Your task to perform on an android device: Show the shopping cart on newegg.com. Add logitech g933 to the cart on newegg.com, then select checkout. Image 0: 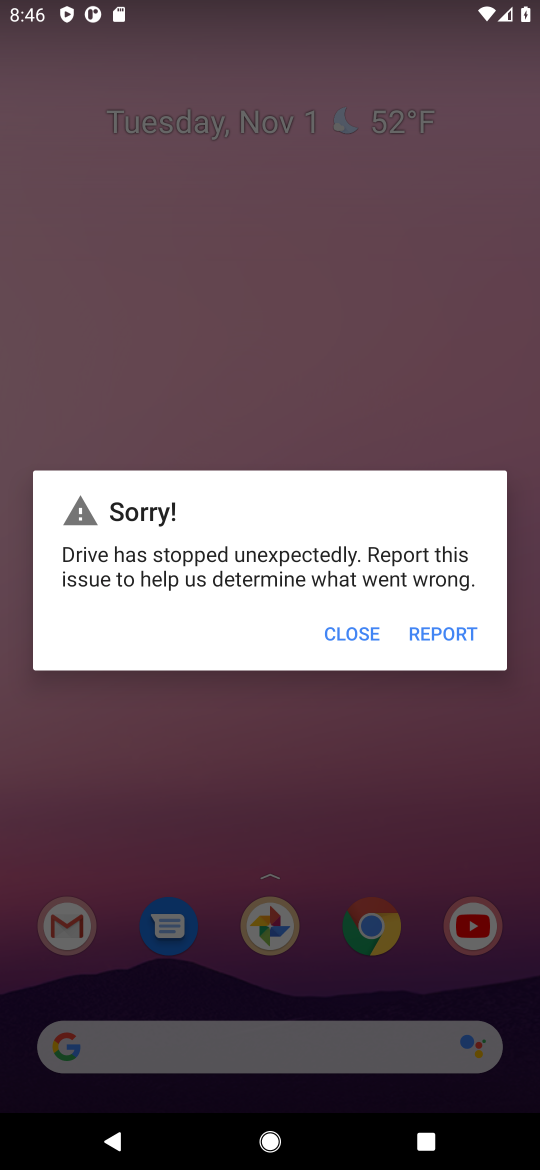
Step 0: click (349, 636)
Your task to perform on an android device: Show the shopping cart on newegg.com. Add logitech g933 to the cart on newegg.com, then select checkout. Image 1: 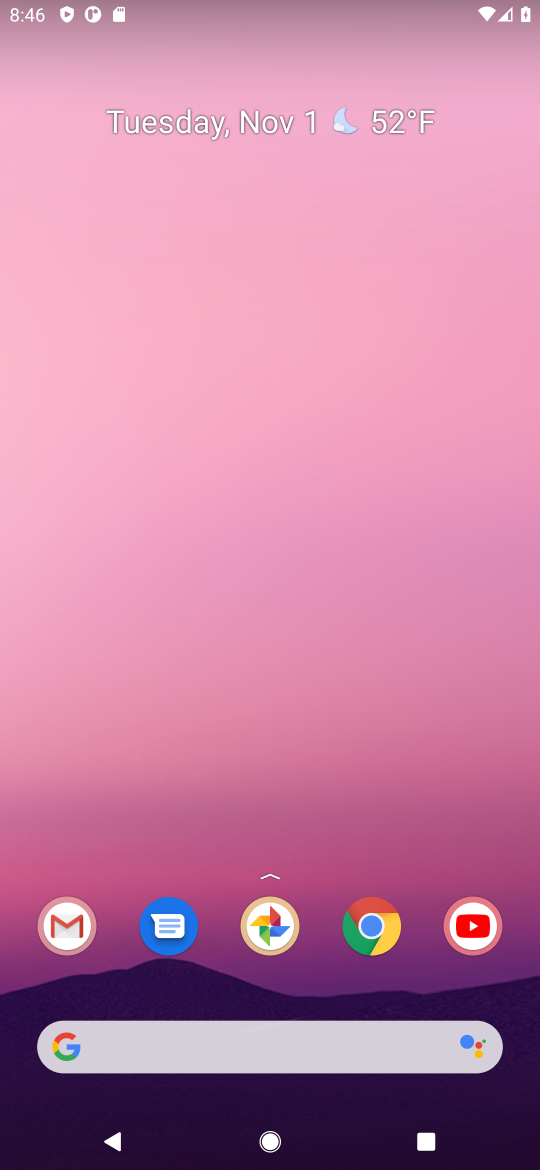
Step 1: click (373, 945)
Your task to perform on an android device: Show the shopping cart on newegg.com. Add logitech g933 to the cart on newegg.com, then select checkout. Image 2: 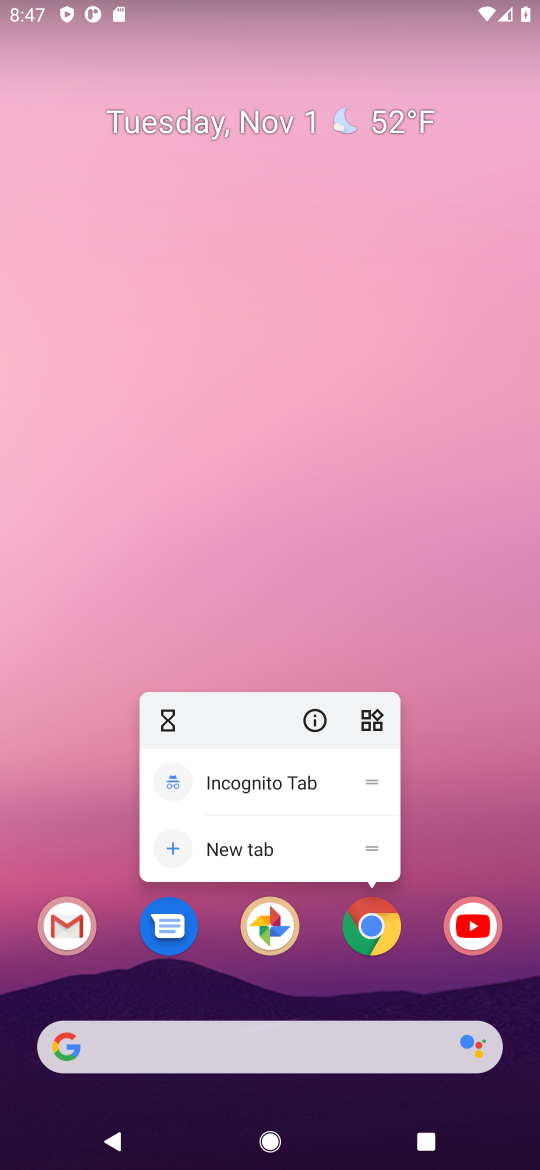
Step 2: click (394, 924)
Your task to perform on an android device: Show the shopping cart on newegg.com. Add logitech g933 to the cart on newegg.com, then select checkout. Image 3: 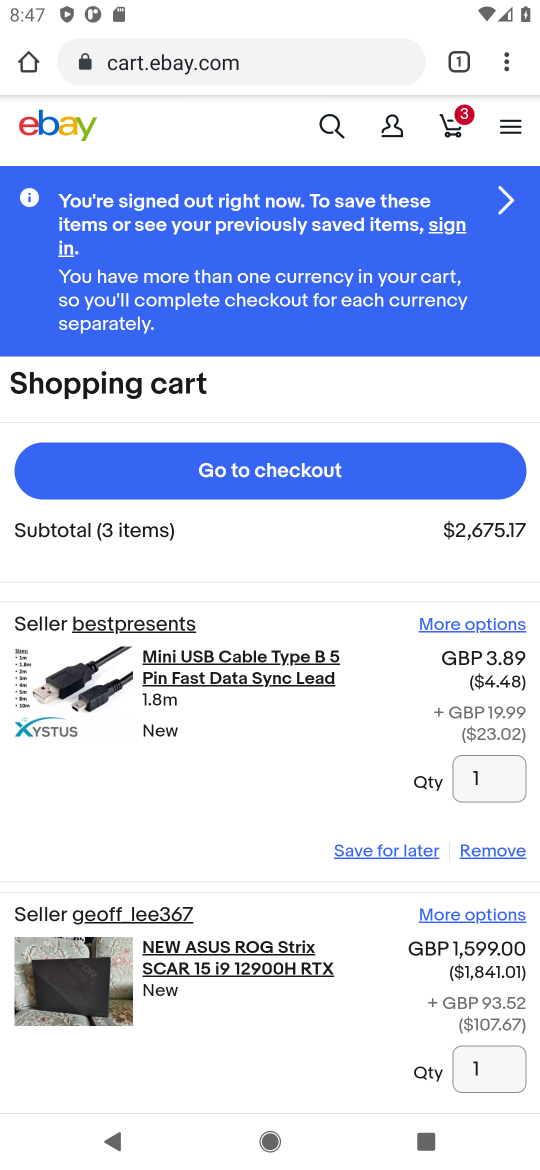
Step 3: click (180, 61)
Your task to perform on an android device: Show the shopping cart on newegg.com. Add logitech g933 to the cart on newegg.com, then select checkout. Image 4: 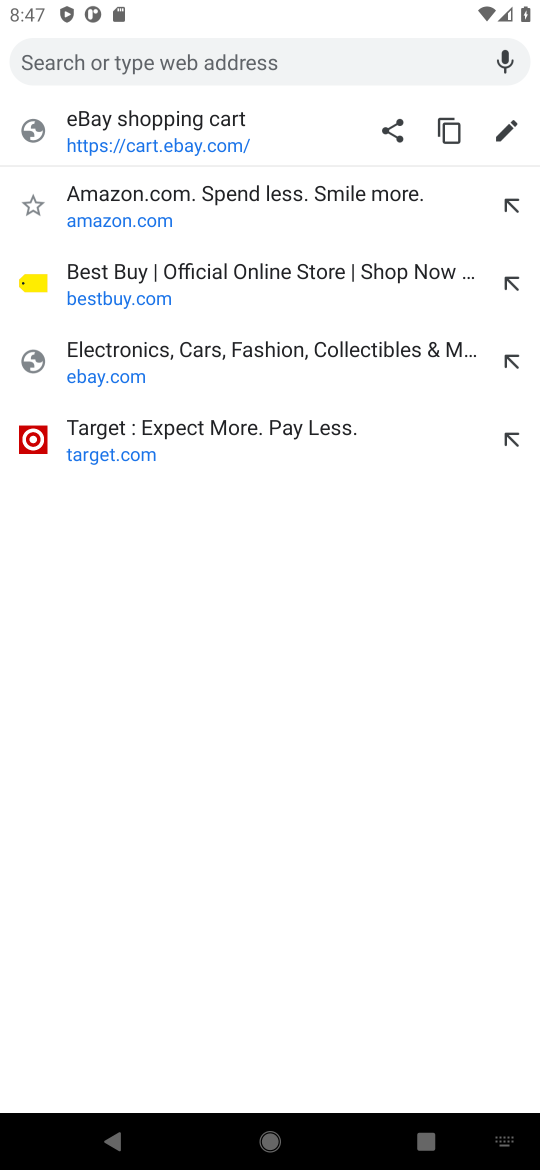
Step 4: type "newegg.com"
Your task to perform on an android device: Show the shopping cart on newegg.com. Add logitech g933 to the cart on newegg.com, then select checkout. Image 5: 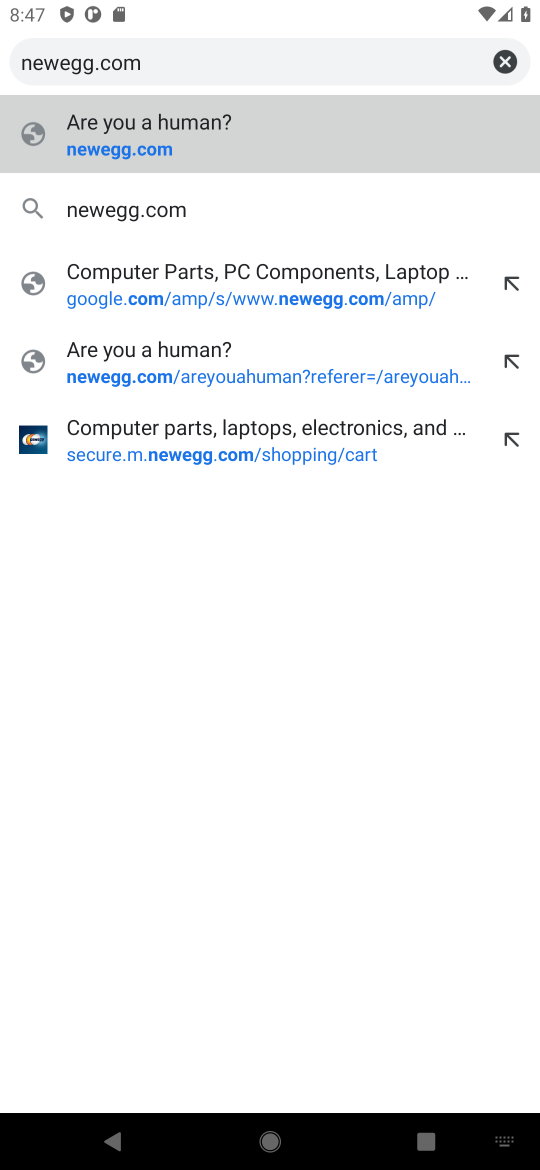
Step 5: click (151, 459)
Your task to perform on an android device: Show the shopping cart on newegg.com. Add logitech g933 to the cart on newegg.com, then select checkout. Image 6: 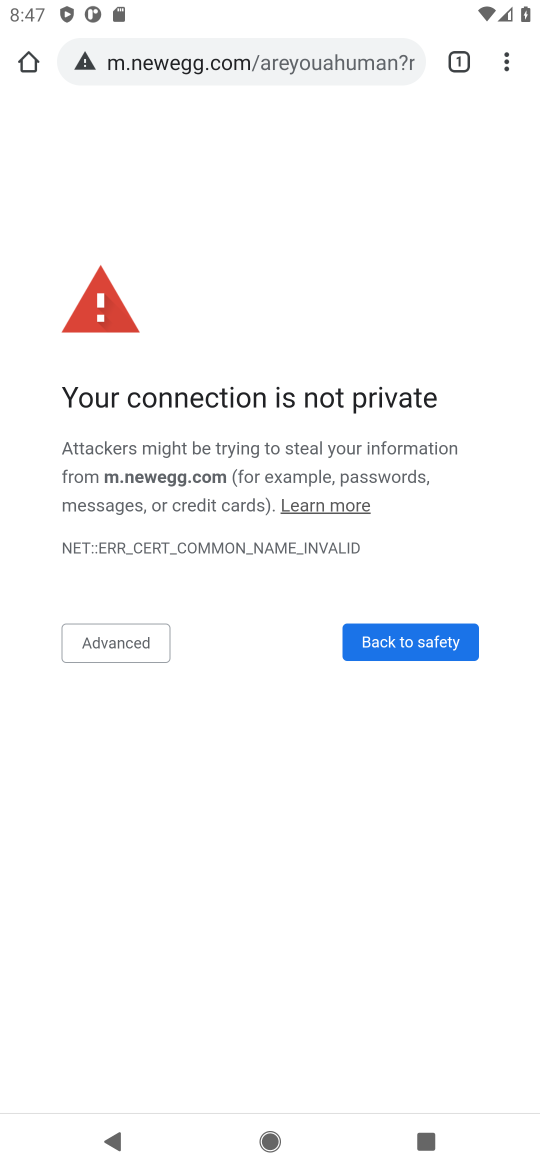
Step 6: press back button
Your task to perform on an android device: Show the shopping cart on newegg.com. Add logitech g933 to the cart on newegg.com, then select checkout. Image 7: 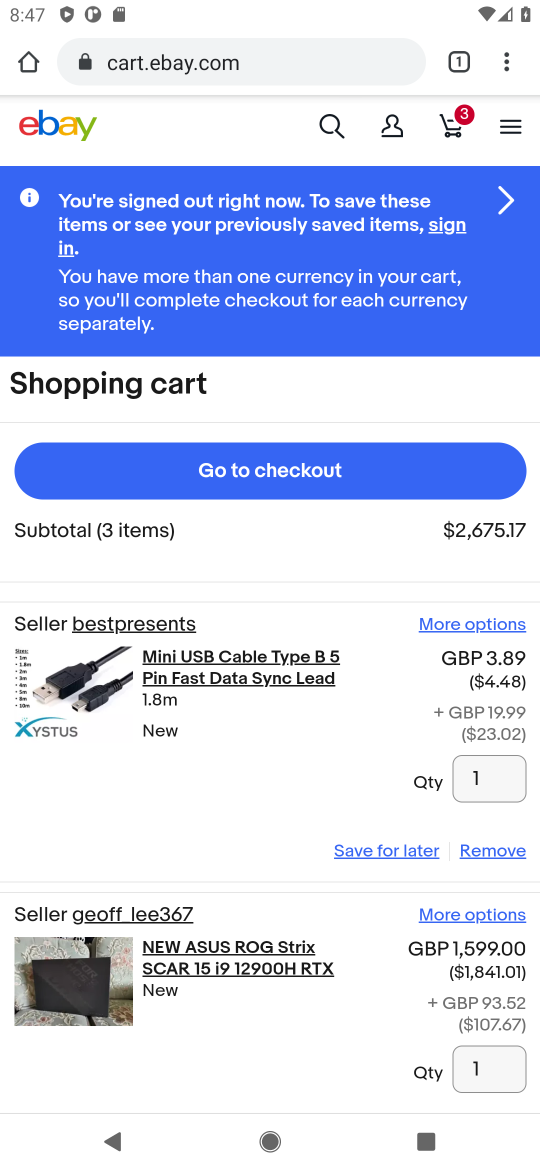
Step 7: click (452, 121)
Your task to perform on an android device: Show the shopping cart on newegg.com. Add logitech g933 to the cart on newegg.com, then select checkout. Image 8: 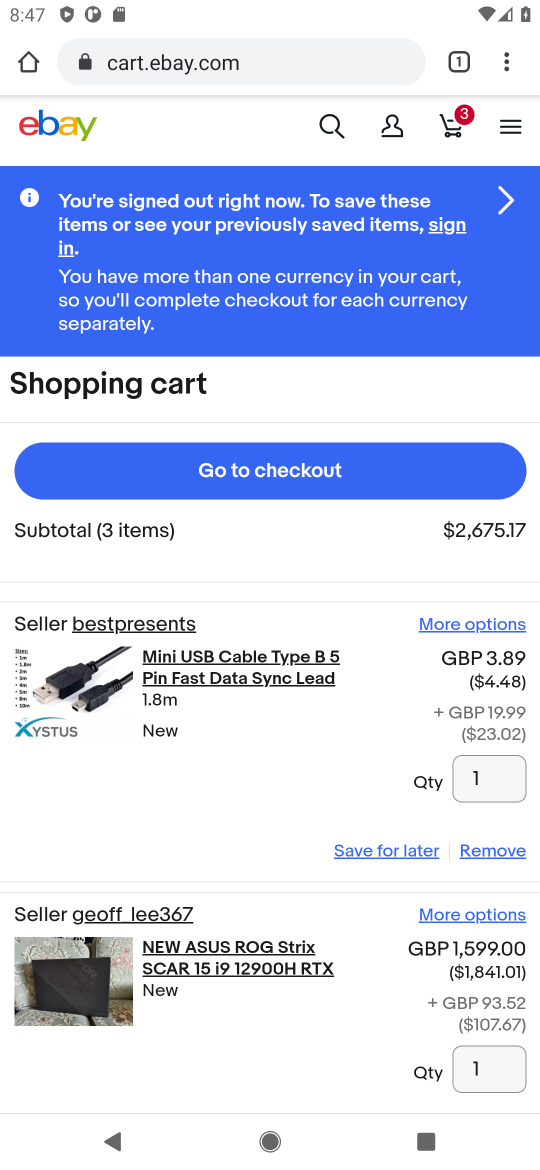
Step 8: click (323, 113)
Your task to perform on an android device: Show the shopping cart on newegg.com. Add logitech g933 to the cart on newegg.com, then select checkout. Image 9: 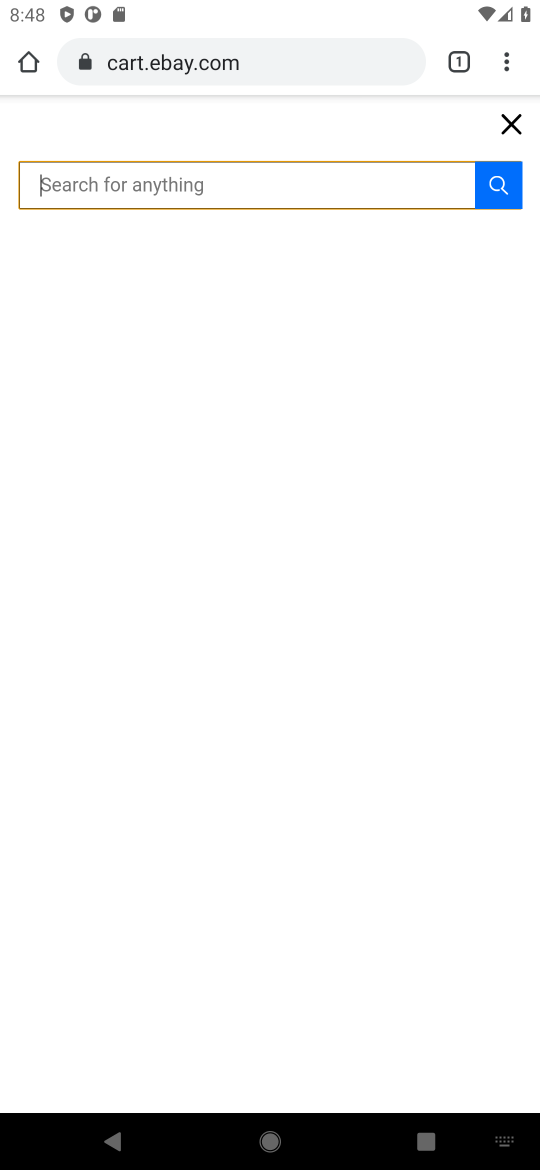
Step 9: type ""
Your task to perform on an android device: Show the shopping cart on newegg.com. Add logitech g933 to the cart on newegg.com, then select checkout. Image 10: 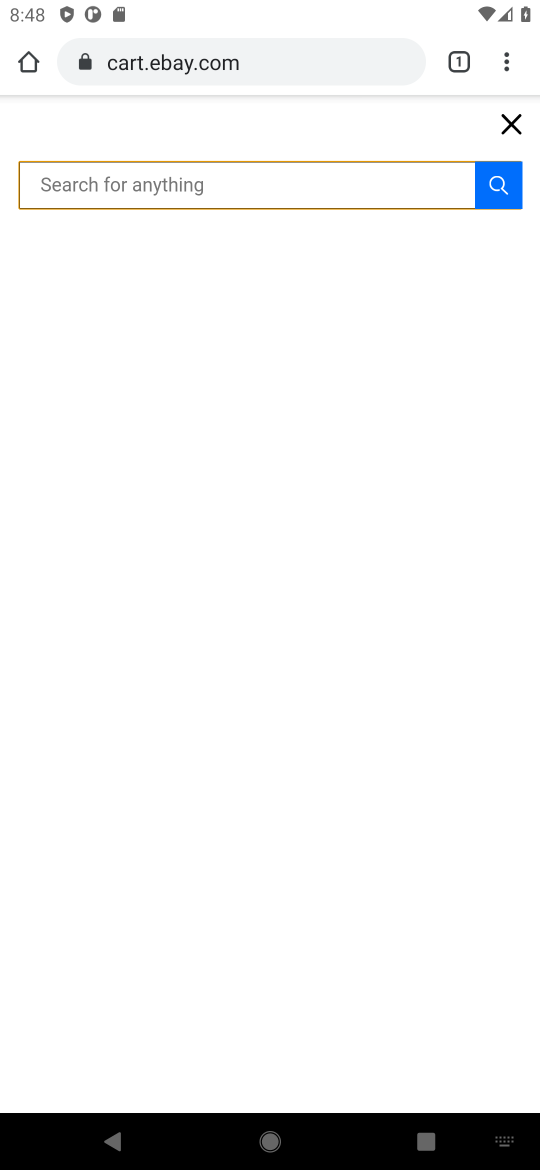
Step 10: press back button
Your task to perform on an android device: Show the shopping cart on newegg.com. Add logitech g933 to the cart on newegg.com, then select checkout. Image 11: 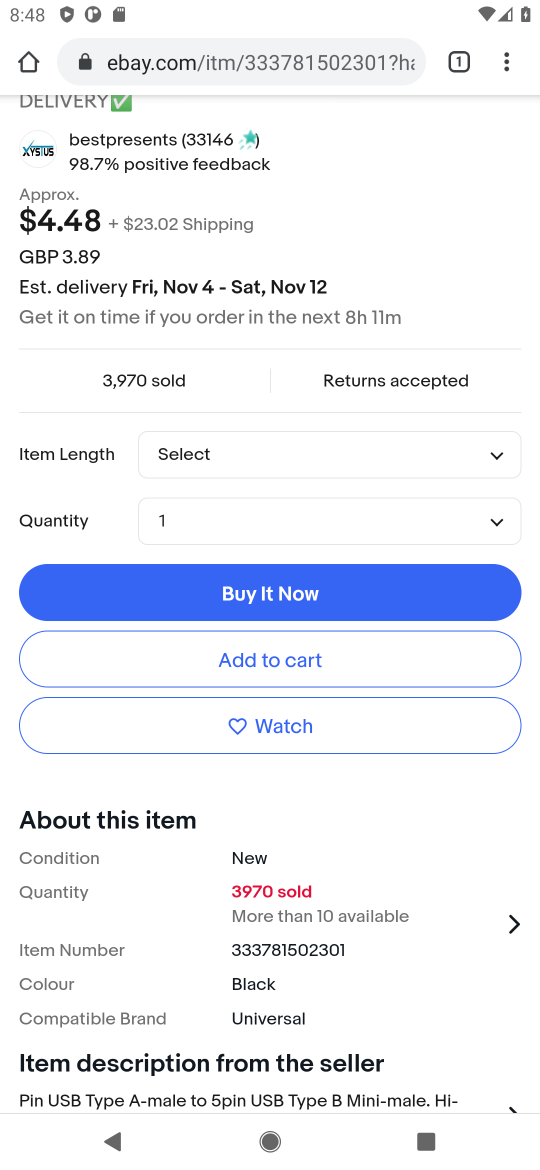
Step 11: click (214, 61)
Your task to perform on an android device: Show the shopping cart on newegg.com. Add logitech g933 to the cart on newegg.com, then select checkout. Image 12: 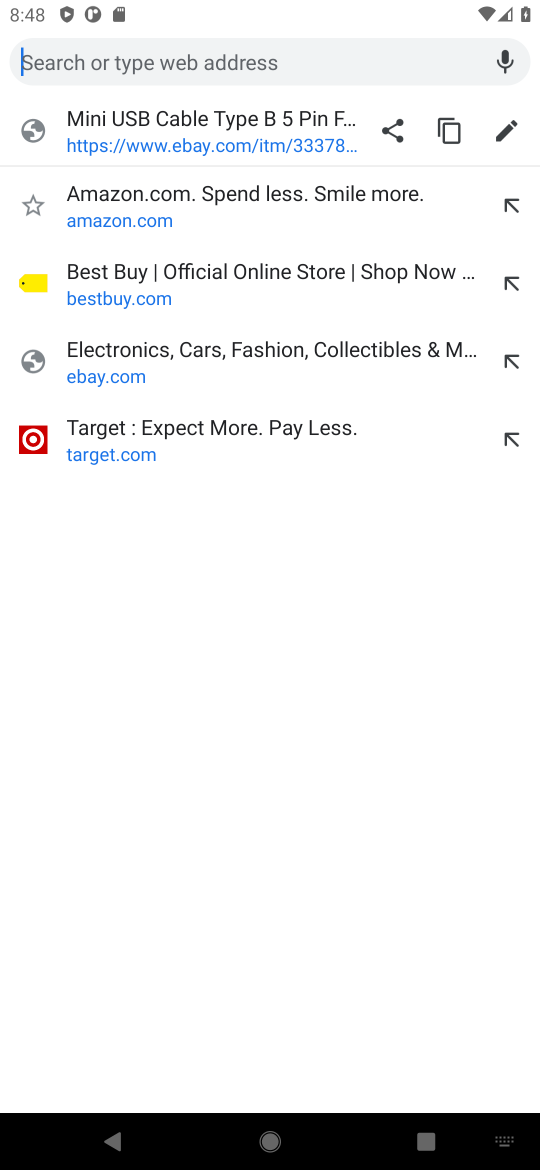
Step 12: type "newegg.com"
Your task to perform on an android device: Show the shopping cart on newegg.com. Add logitech g933 to the cart on newegg.com, then select checkout. Image 13: 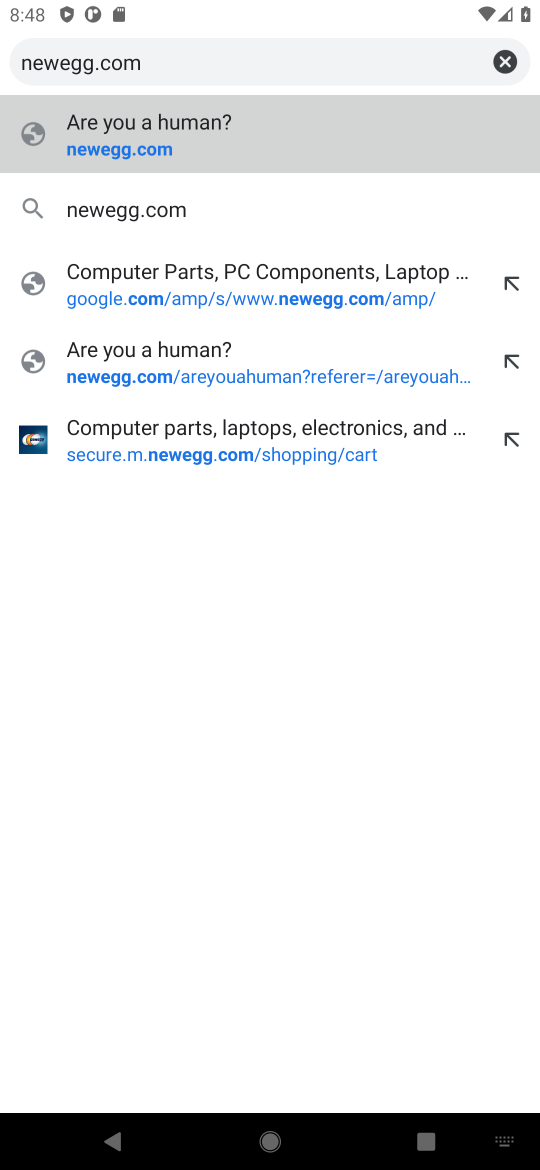
Step 13: type ""
Your task to perform on an android device: Show the shopping cart on newegg.com. Add logitech g933 to the cart on newegg.com, then select checkout. Image 14: 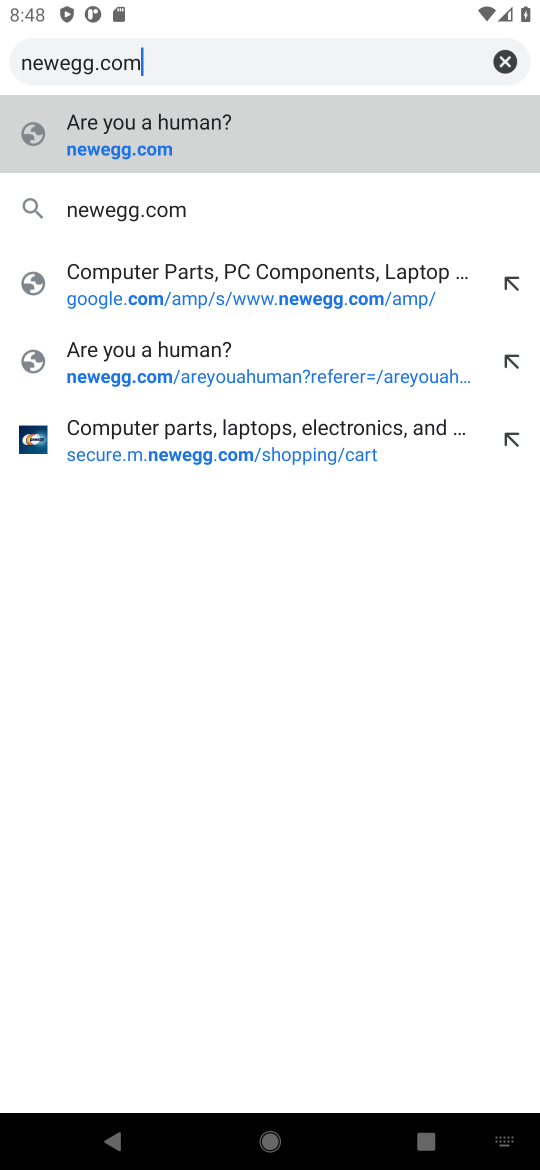
Step 14: click (170, 77)
Your task to perform on an android device: Show the shopping cart on newegg.com. Add logitech g933 to the cart on newegg.com, then select checkout. Image 15: 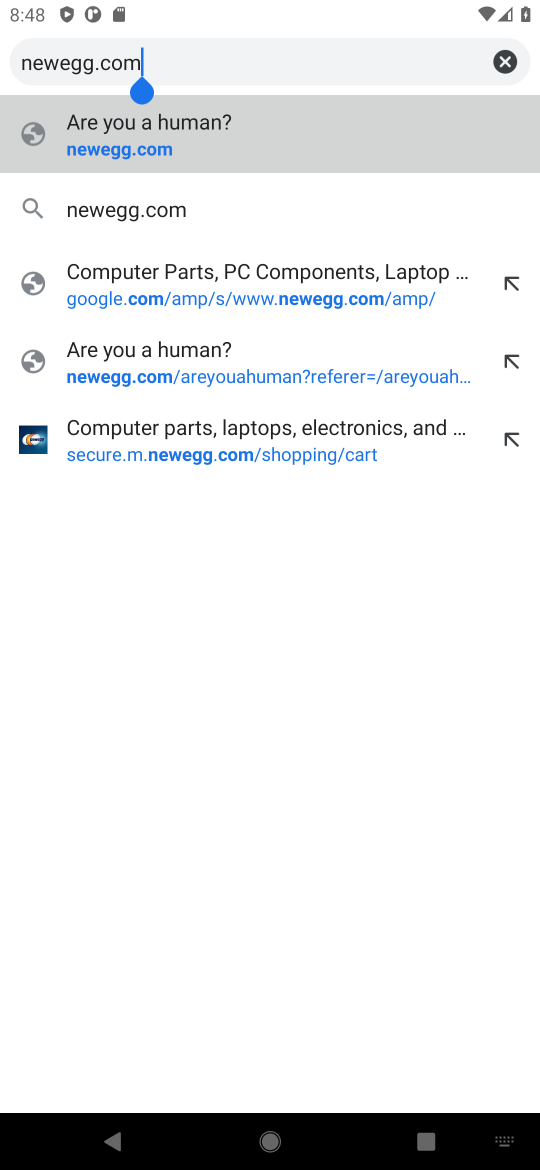
Step 15: click (498, 61)
Your task to perform on an android device: Show the shopping cart on newegg.com. Add logitech g933 to the cart on newegg.com, then select checkout. Image 16: 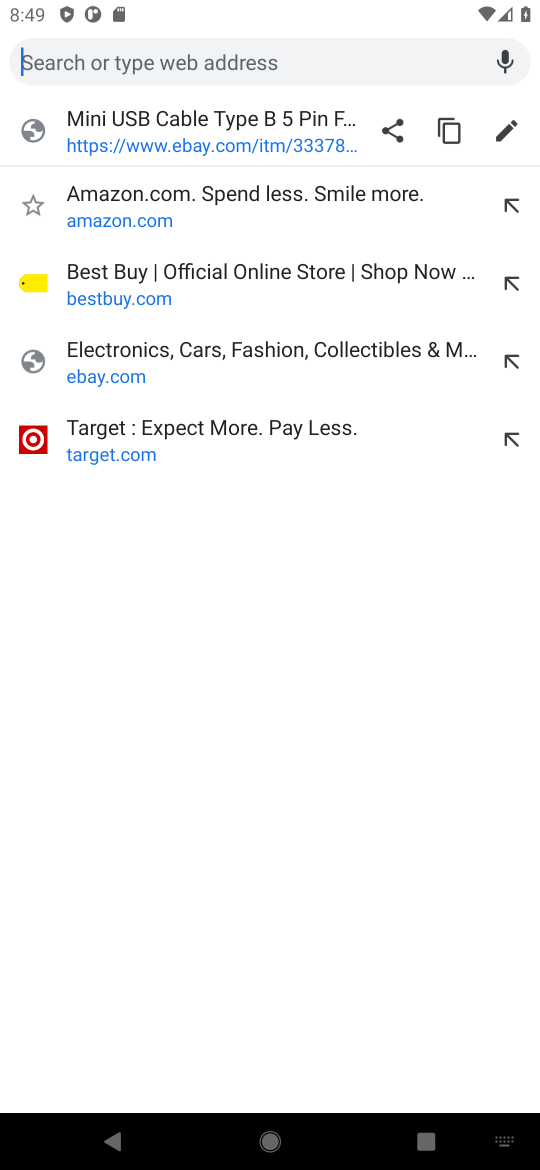
Step 16: type "newegg"
Your task to perform on an android device: Show the shopping cart on newegg.com. Add logitech g933 to the cart on newegg.com, then select checkout. Image 17: 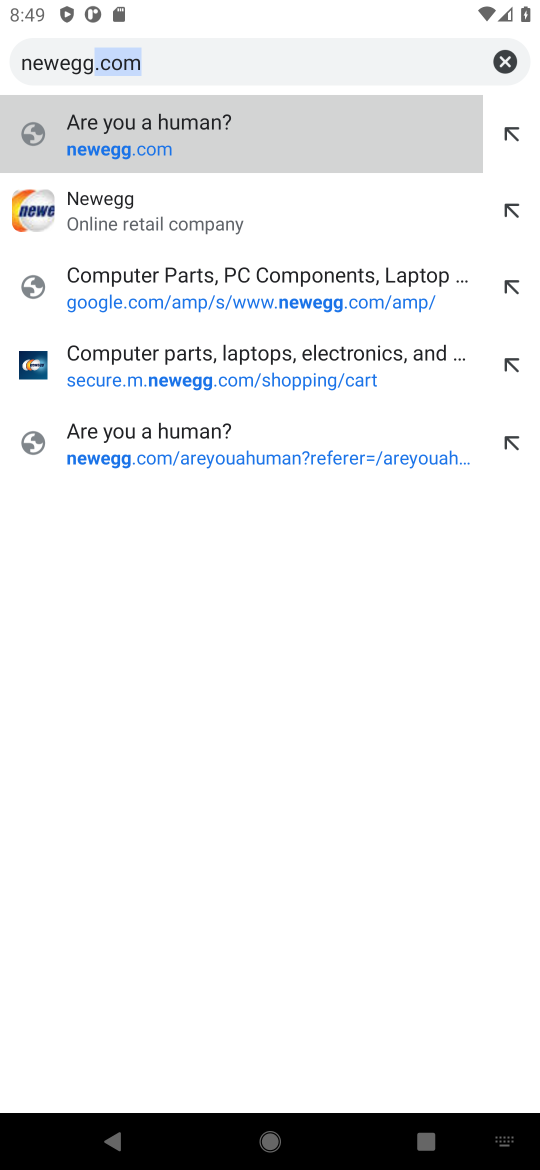
Step 17: click (167, 371)
Your task to perform on an android device: Show the shopping cart on newegg.com. Add logitech g933 to the cart on newegg.com, then select checkout. Image 18: 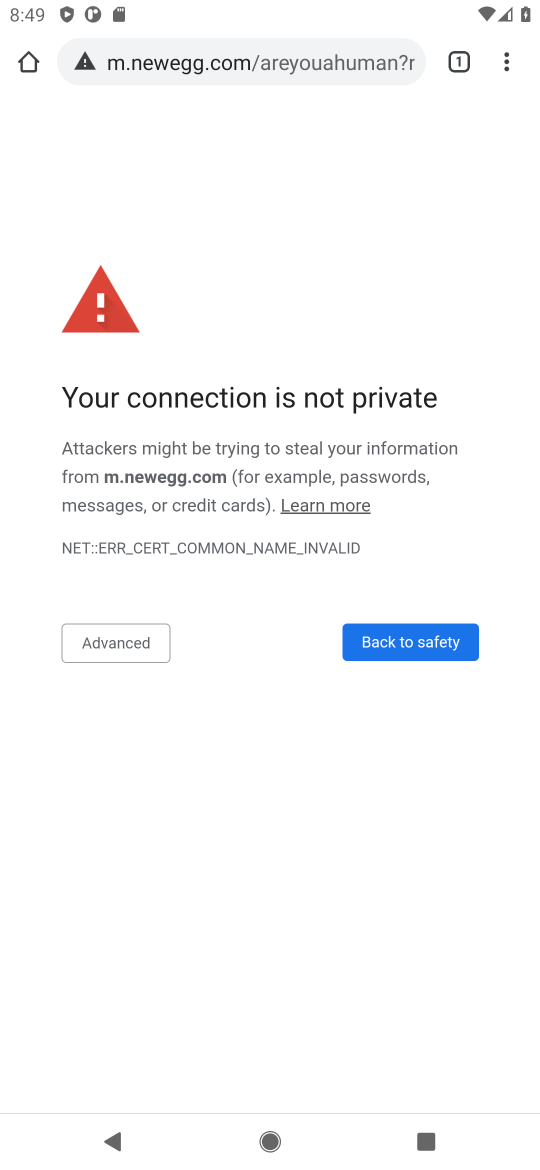
Step 18: task complete